Your task to perform on an android device: Go to Maps Image 0: 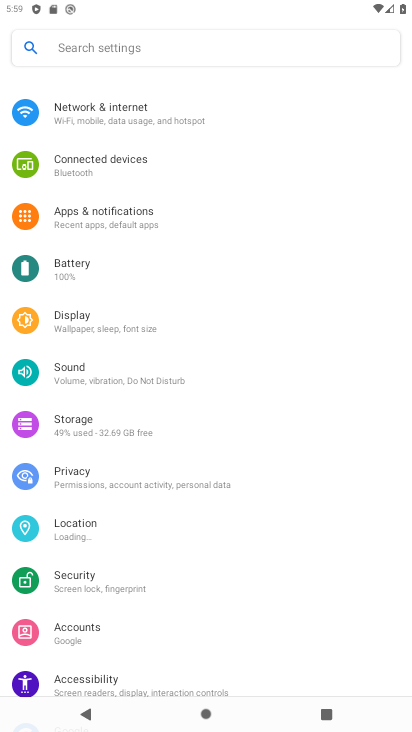
Step 0: press home button
Your task to perform on an android device: Go to Maps Image 1: 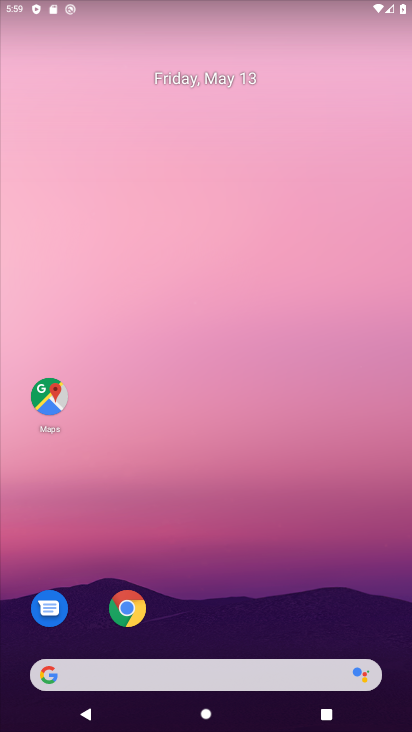
Step 1: click (47, 394)
Your task to perform on an android device: Go to Maps Image 2: 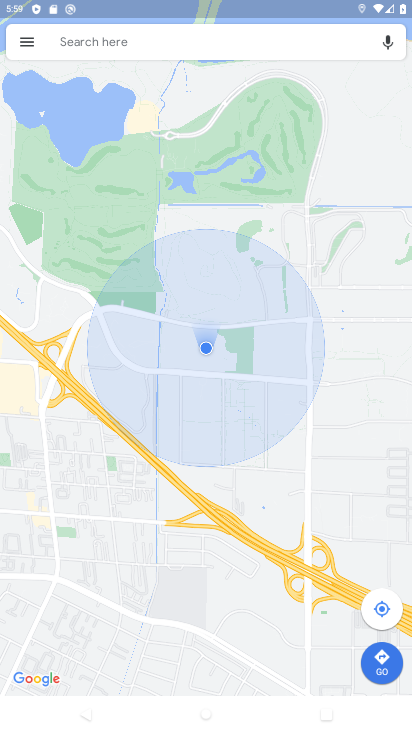
Step 2: click (206, 38)
Your task to perform on an android device: Go to Maps Image 3: 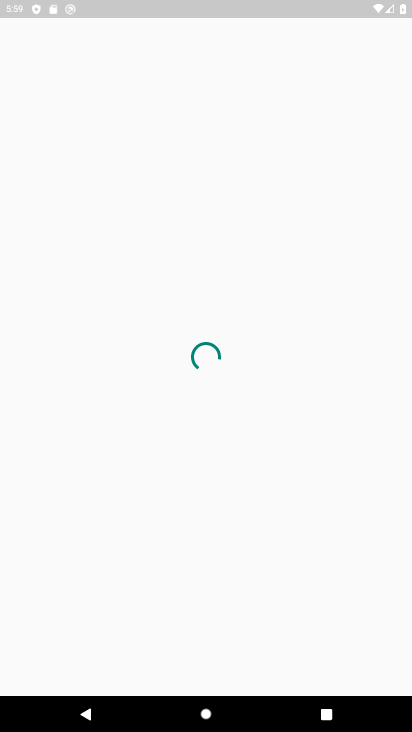
Step 3: task complete